Your task to perform on an android device: Search for pizza restaurants on Maps Image 0: 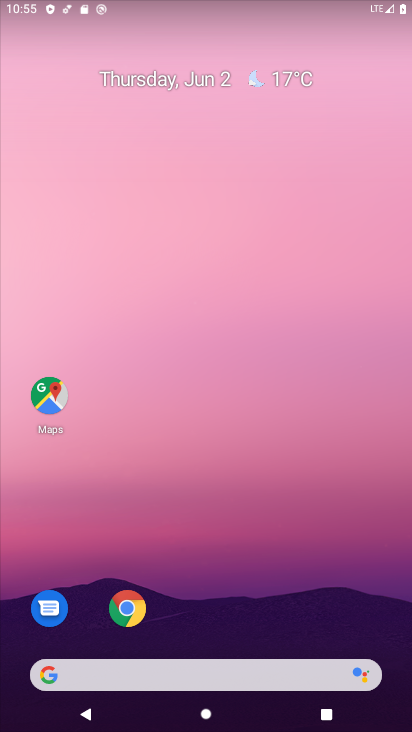
Step 0: click (47, 406)
Your task to perform on an android device: Search for pizza restaurants on Maps Image 1: 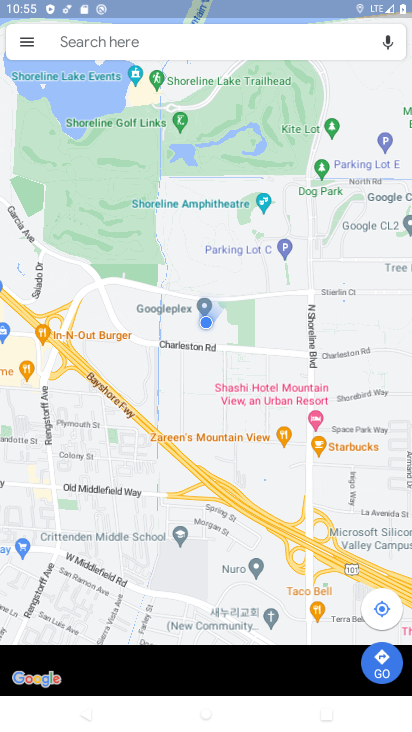
Step 1: click (203, 43)
Your task to perform on an android device: Search for pizza restaurants on Maps Image 2: 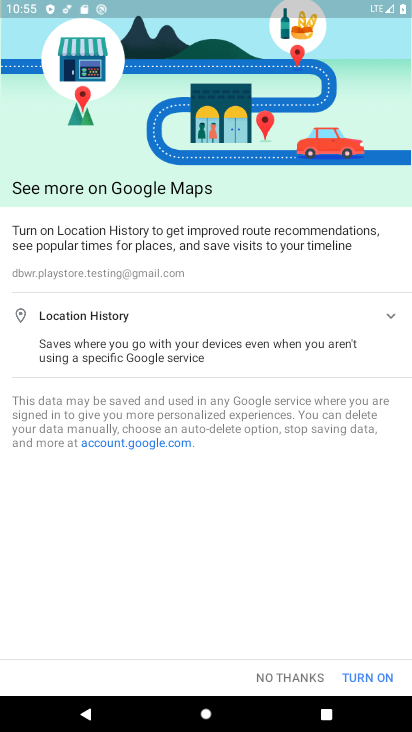
Step 2: type "pizza restaurants"
Your task to perform on an android device: Search for pizza restaurants on Maps Image 3: 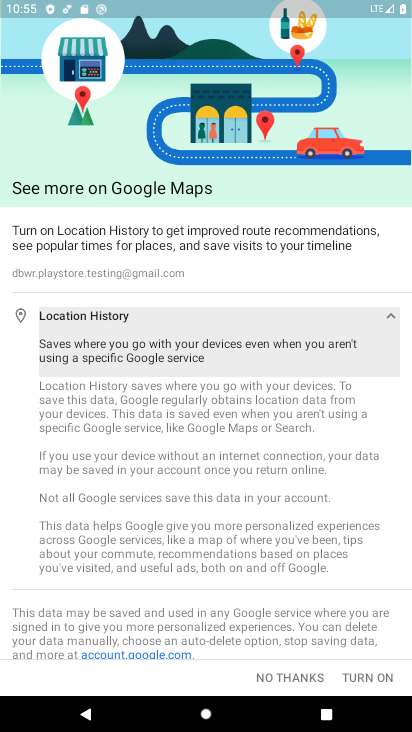
Step 3: type ""
Your task to perform on an android device: Search for pizza restaurants on Maps Image 4: 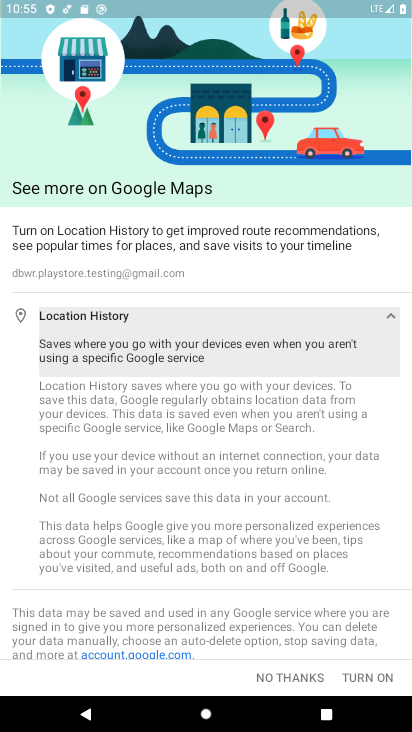
Step 4: click (270, 680)
Your task to perform on an android device: Search for pizza restaurants on Maps Image 5: 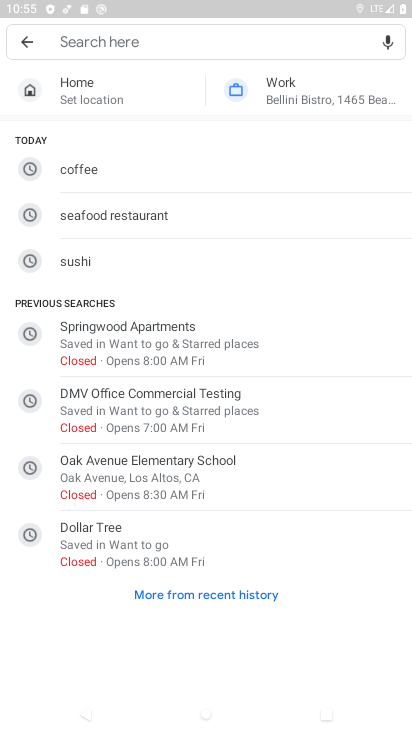
Step 5: click (149, 36)
Your task to perform on an android device: Search for pizza restaurants on Maps Image 6: 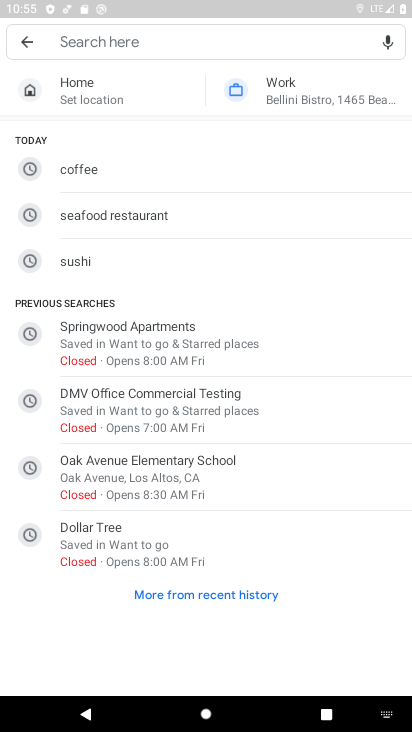
Step 6: type "pizza restaurants"
Your task to perform on an android device: Search for pizza restaurants on Maps Image 7: 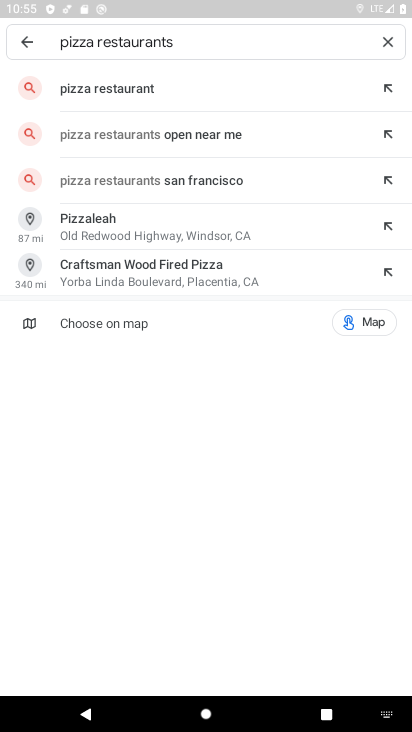
Step 7: click (206, 81)
Your task to perform on an android device: Search for pizza restaurants on Maps Image 8: 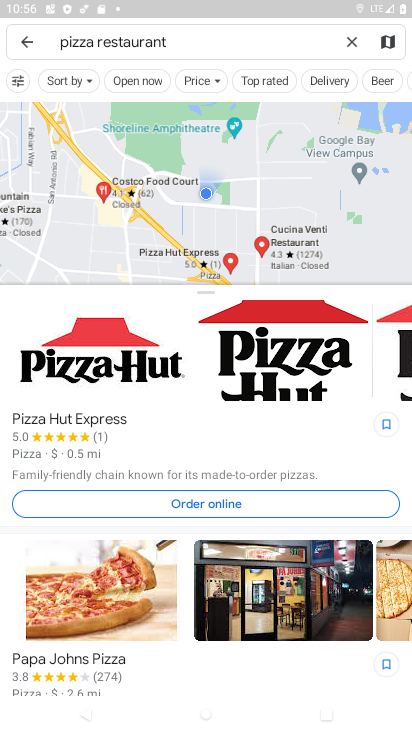
Step 8: task complete